Your task to perform on an android device: toggle priority inbox in the gmail app Image 0: 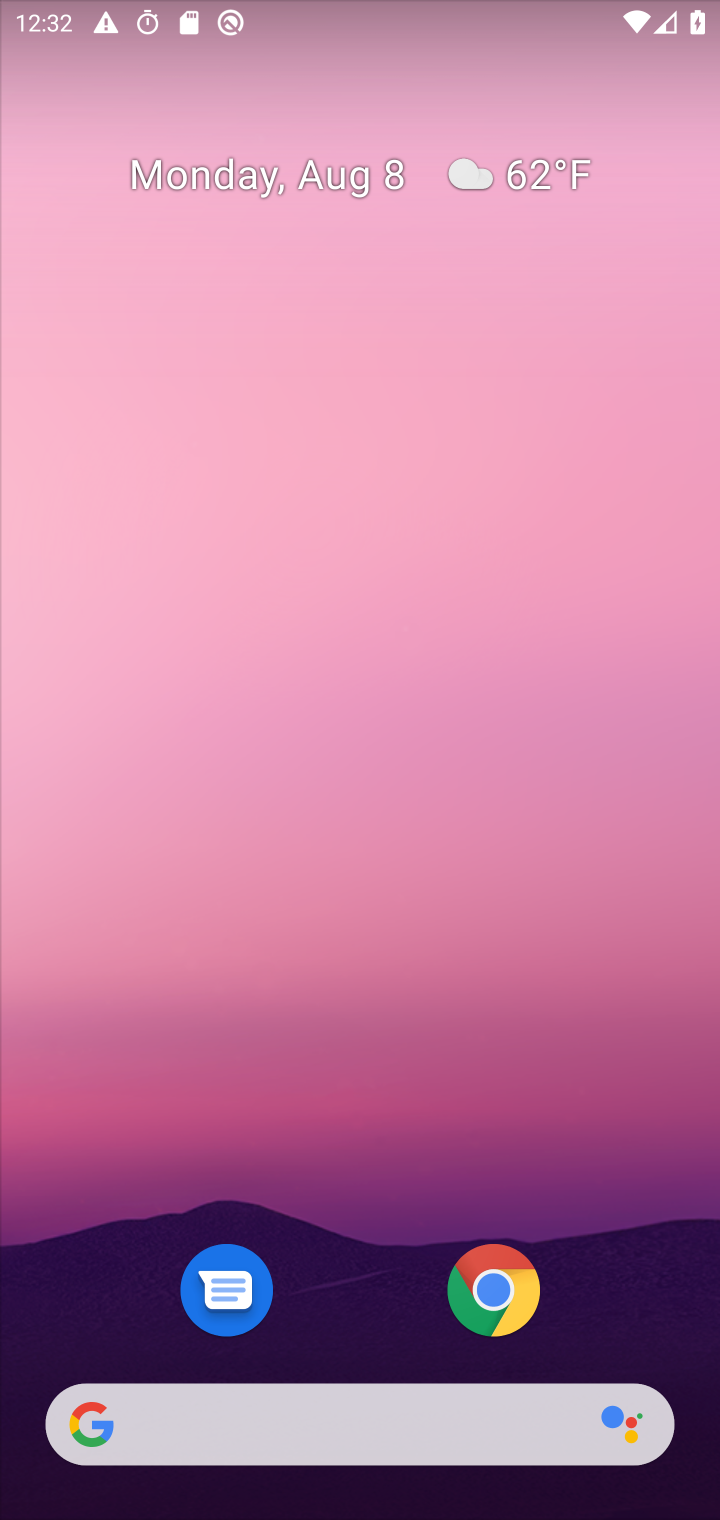
Step 0: press home button
Your task to perform on an android device: toggle priority inbox in the gmail app Image 1: 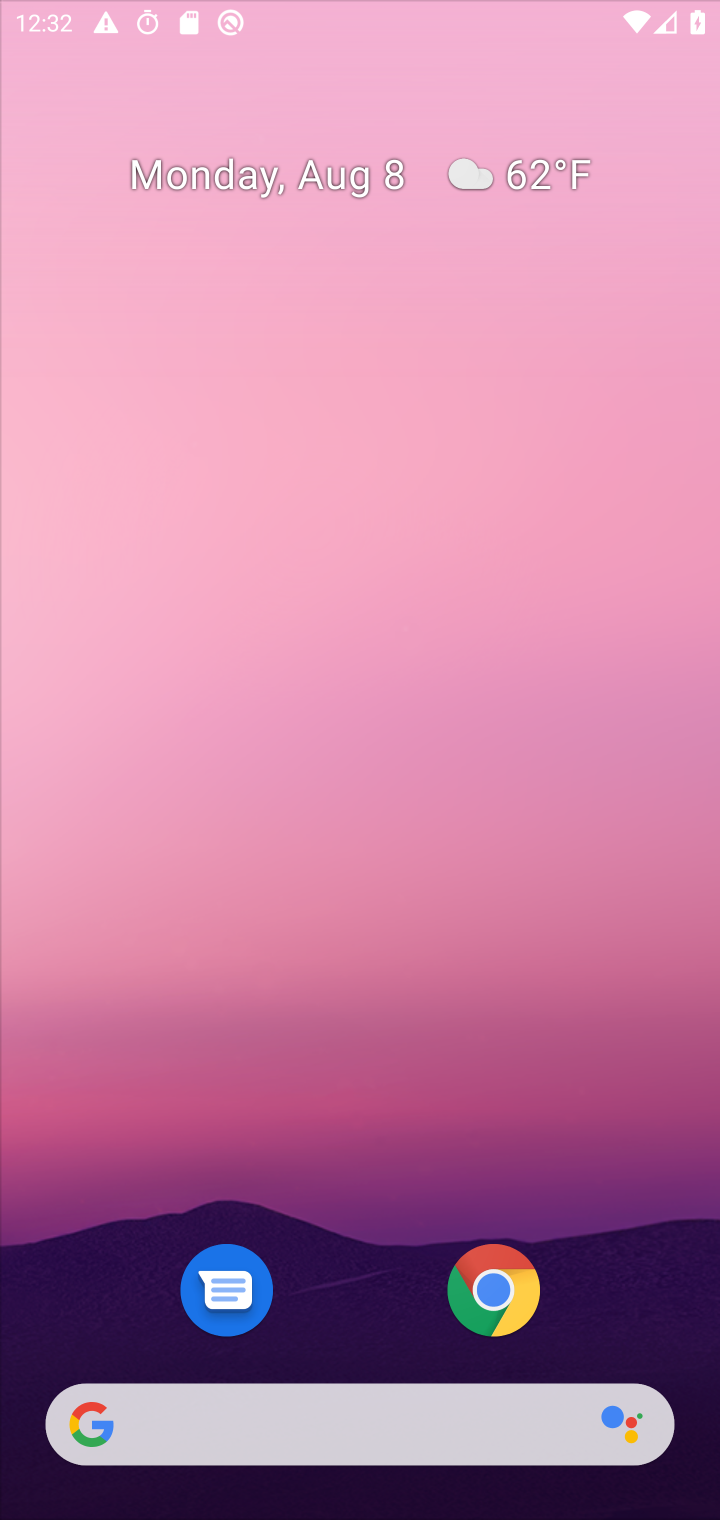
Step 1: drag from (359, 986) to (365, 837)
Your task to perform on an android device: toggle priority inbox in the gmail app Image 2: 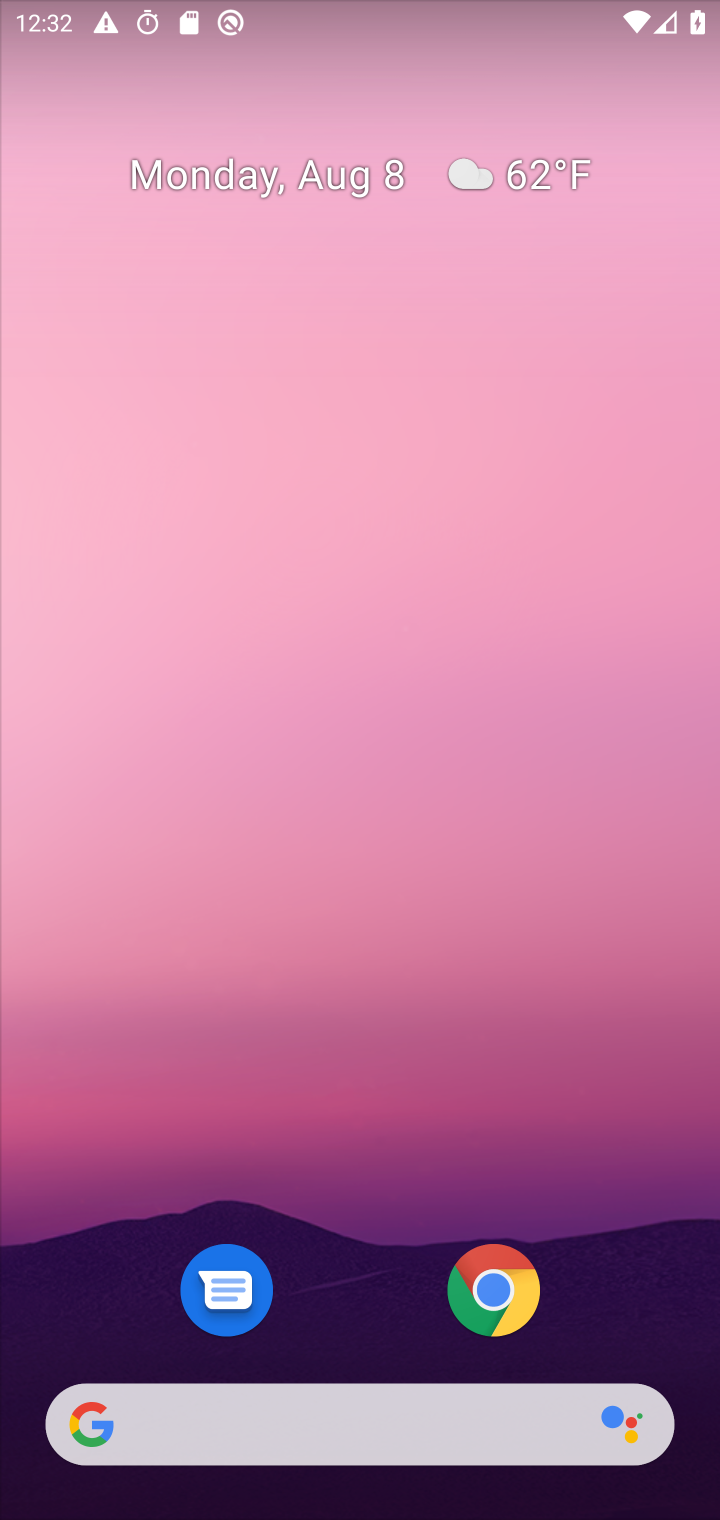
Step 2: drag from (367, 1330) to (398, 503)
Your task to perform on an android device: toggle priority inbox in the gmail app Image 3: 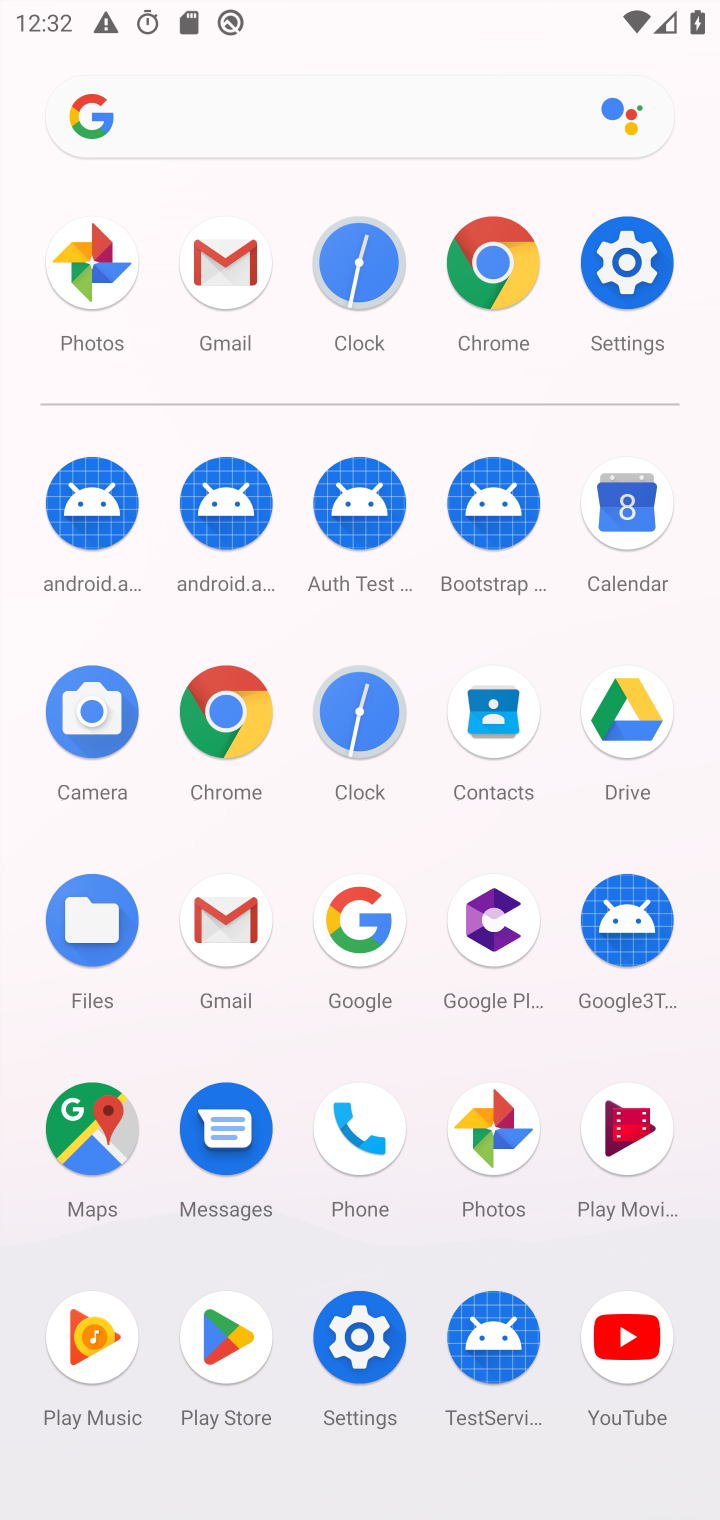
Step 3: click (237, 933)
Your task to perform on an android device: toggle priority inbox in the gmail app Image 4: 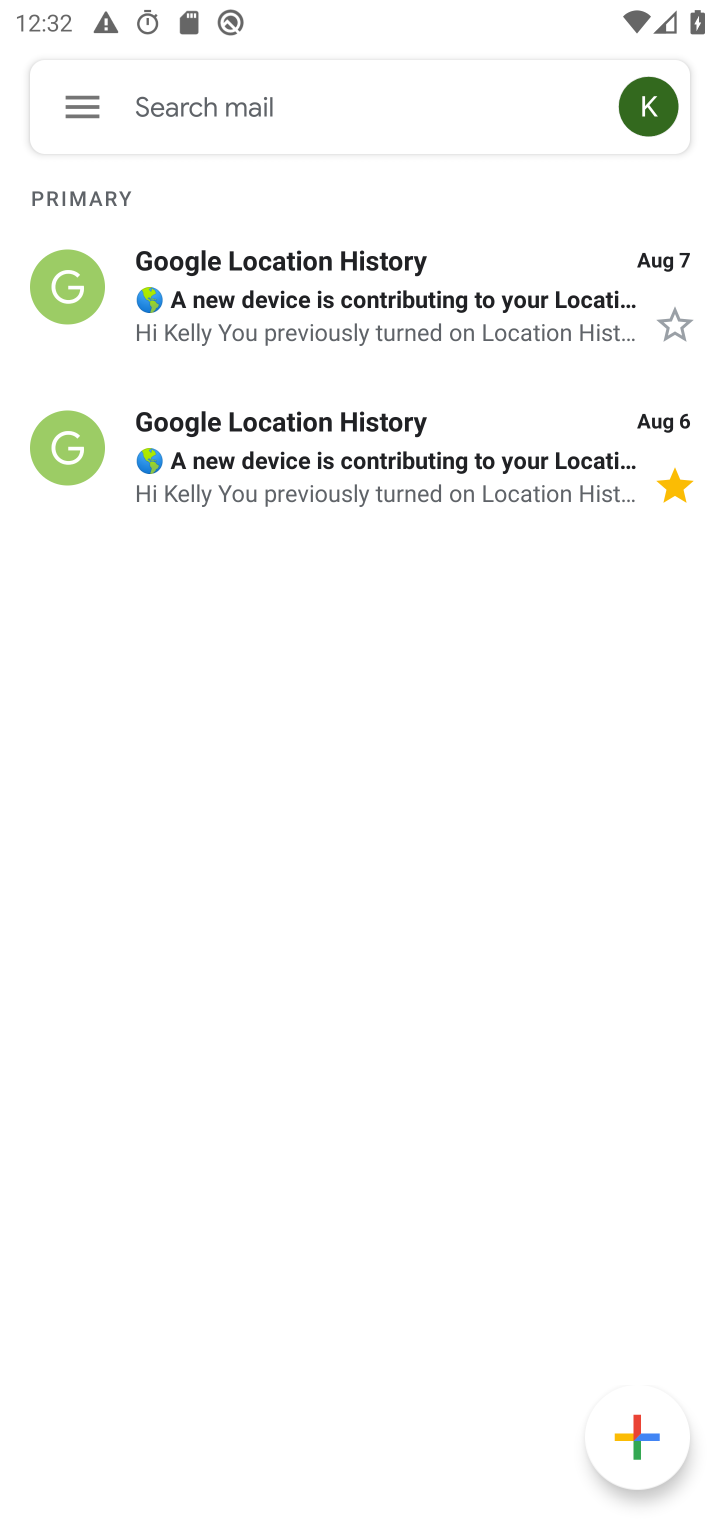
Step 4: click (63, 100)
Your task to perform on an android device: toggle priority inbox in the gmail app Image 5: 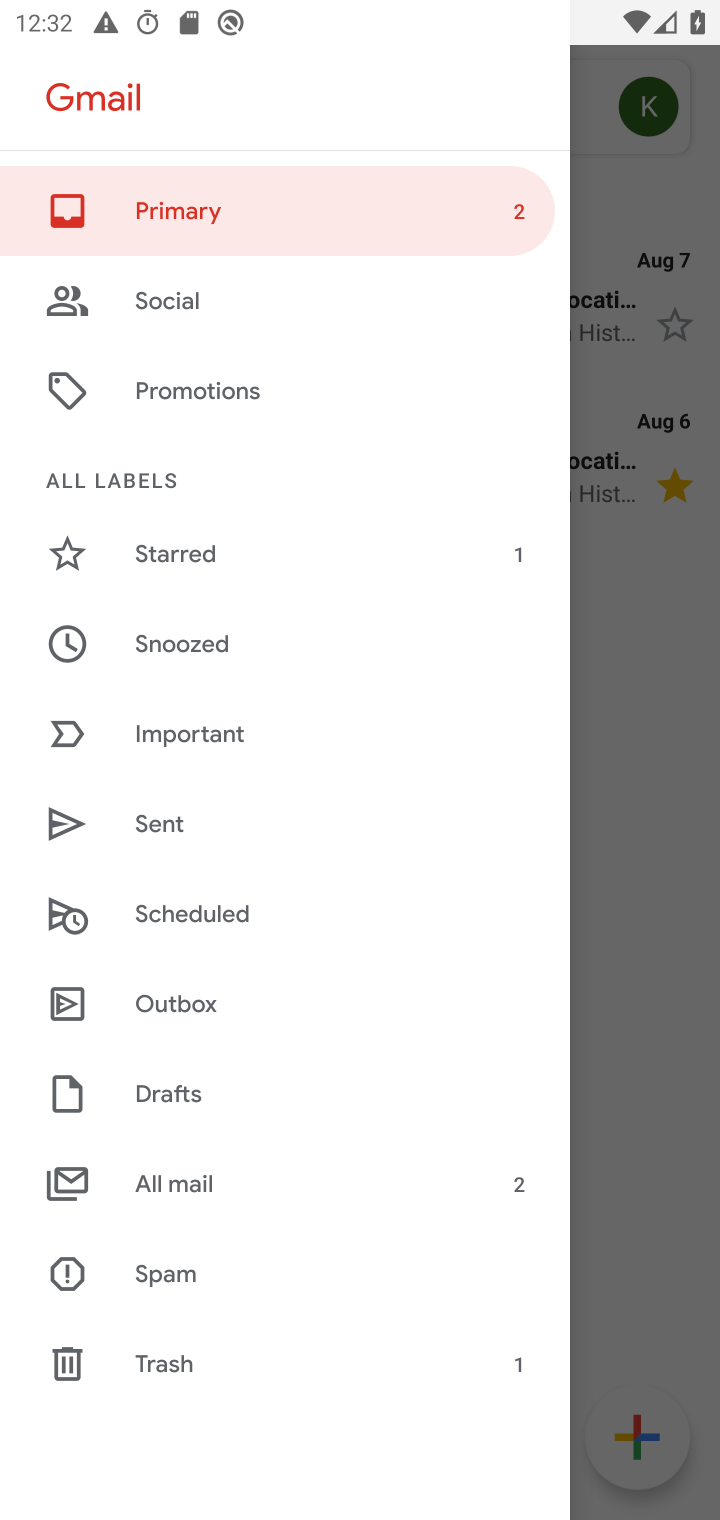
Step 5: drag from (192, 1294) to (238, 823)
Your task to perform on an android device: toggle priority inbox in the gmail app Image 6: 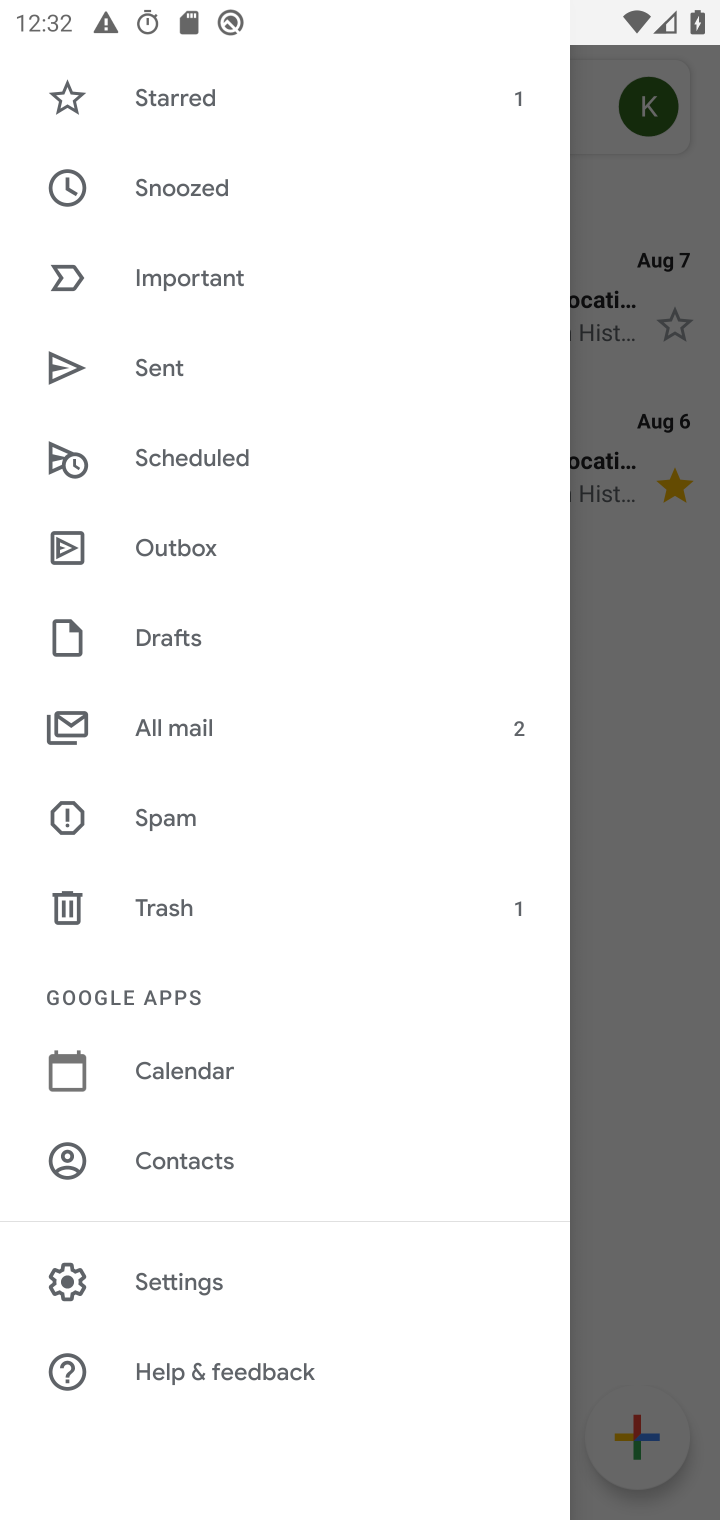
Step 6: click (171, 1286)
Your task to perform on an android device: toggle priority inbox in the gmail app Image 7: 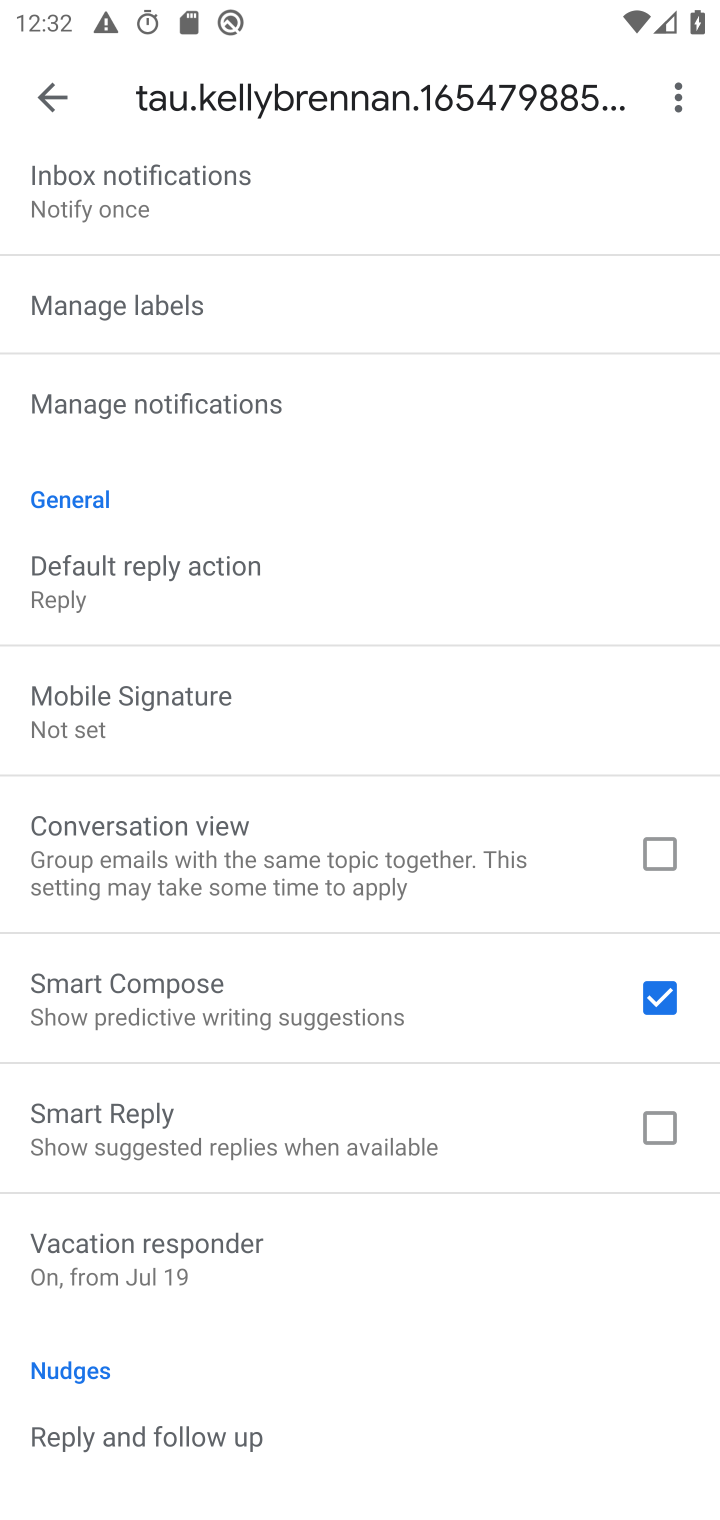
Step 7: drag from (195, 364) to (261, 1000)
Your task to perform on an android device: toggle priority inbox in the gmail app Image 8: 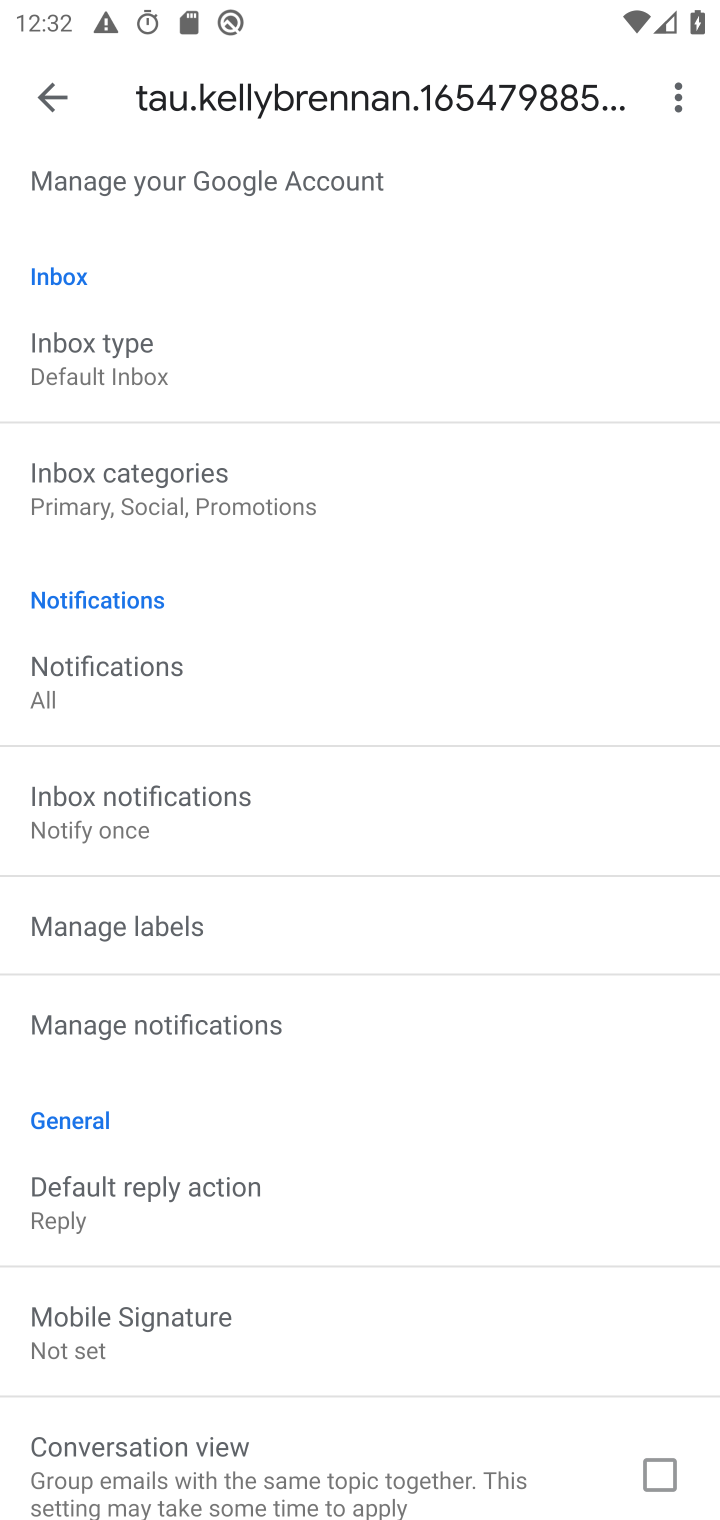
Step 8: click (180, 348)
Your task to perform on an android device: toggle priority inbox in the gmail app Image 9: 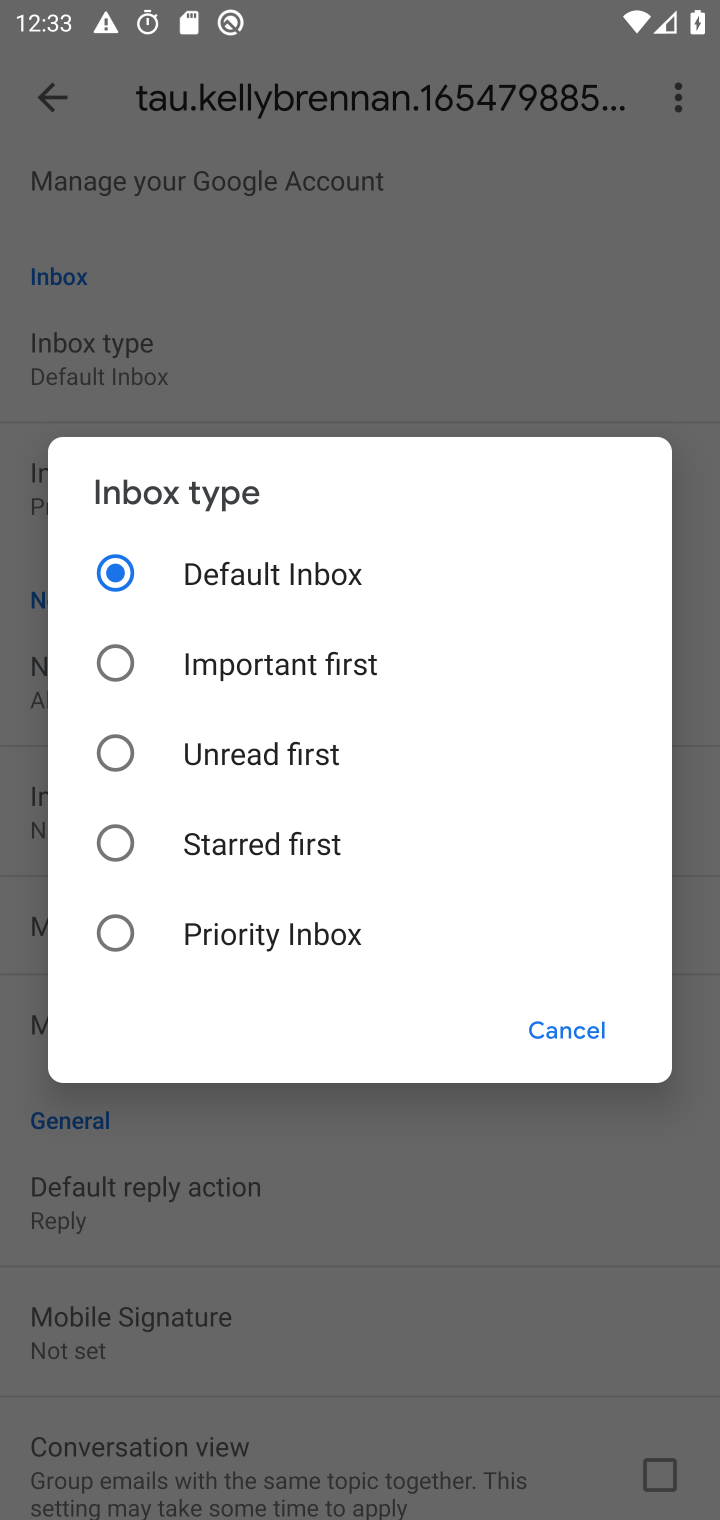
Step 9: click (196, 945)
Your task to perform on an android device: toggle priority inbox in the gmail app Image 10: 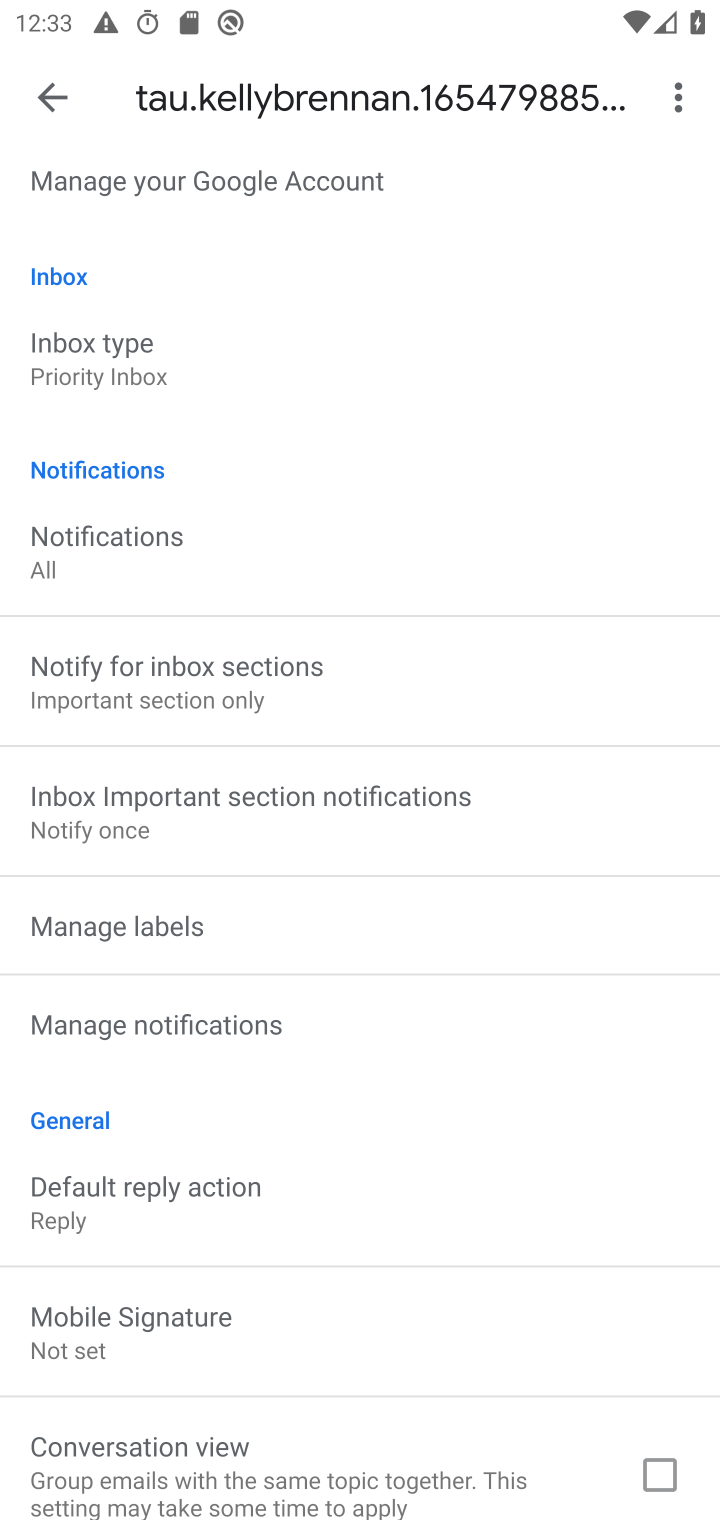
Step 10: task complete